Your task to perform on an android device: Open Yahoo.com Image 0: 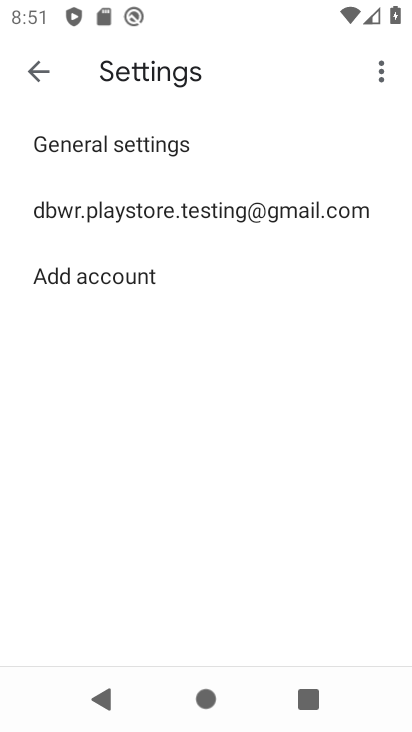
Step 0: press home button
Your task to perform on an android device: Open Yahoo.com Image 1: 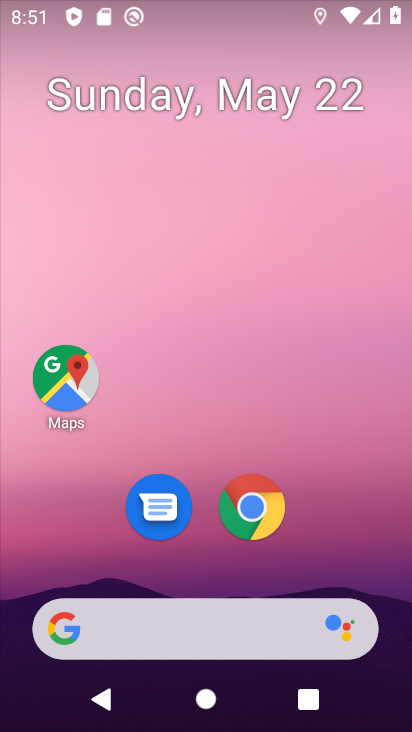
Step 1: click (130, 661)
Your task to perform on an android device: Open Yahoo.com Image 2: 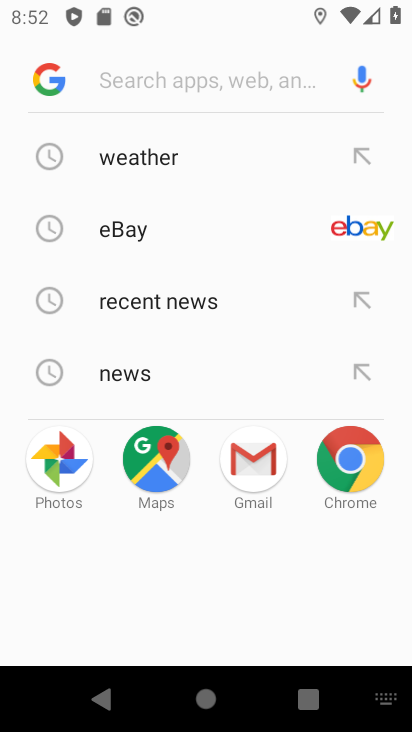
Step 2: type "yahhoo"
Your task to perform on an android device: Open Yahoo.com Image 3: 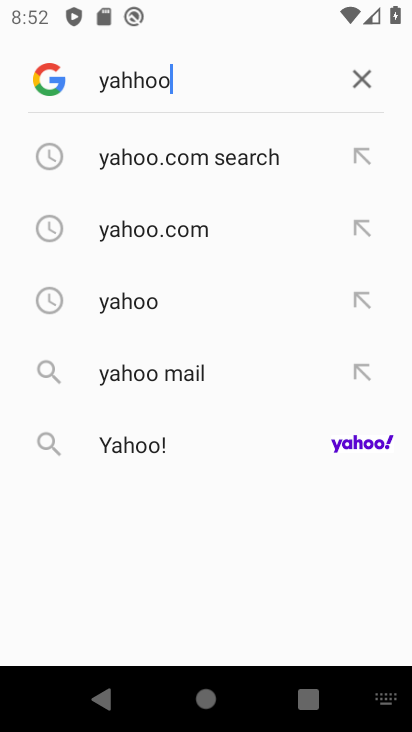
Step 3: click (160, 450)
Your task to perform on an android device: Open Yahoo.com Image 4: 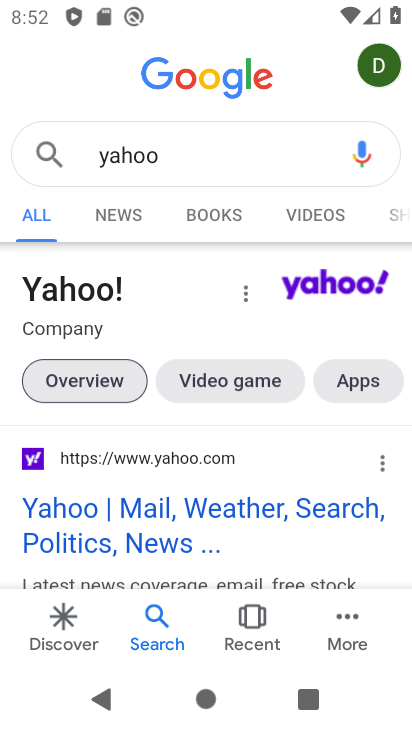
Step 4: click (257, 519)
Your task to perform on an android device: Open Yahoo.com Image 5: 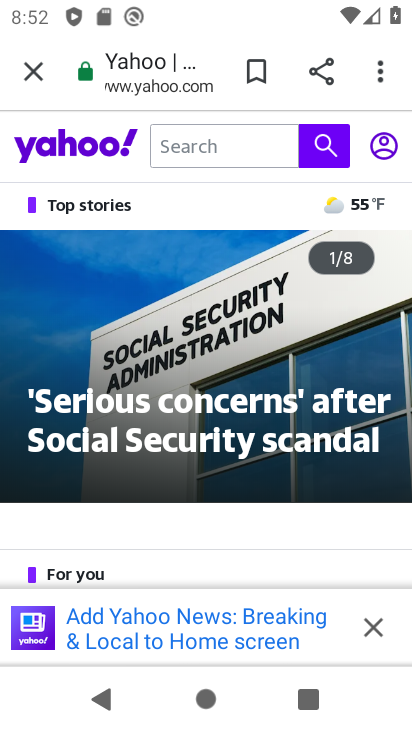
Step 5: task complete